Your task to perform on an android device: Go to Reddit.com Image 0: 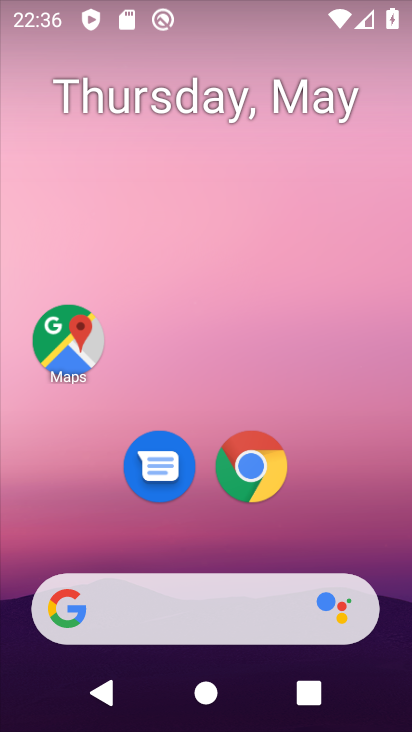
Step 0: click (254, 478)
Your task to perform on an android device: Go to Reddit.com Image 1: 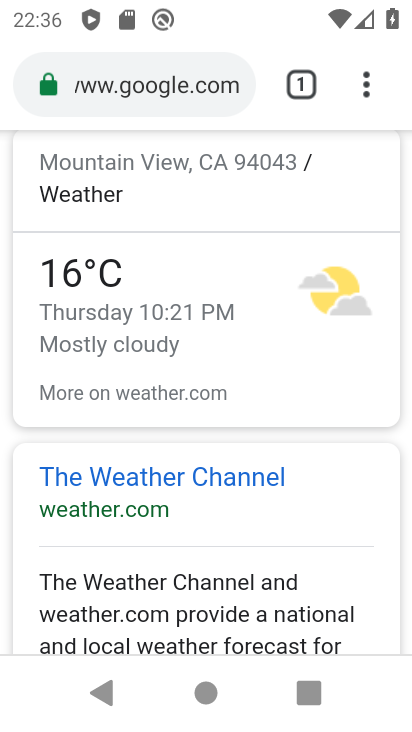
Step 1: click (186, 67)
Your task to perform on an android device: Go to Reddit.com Image 2: 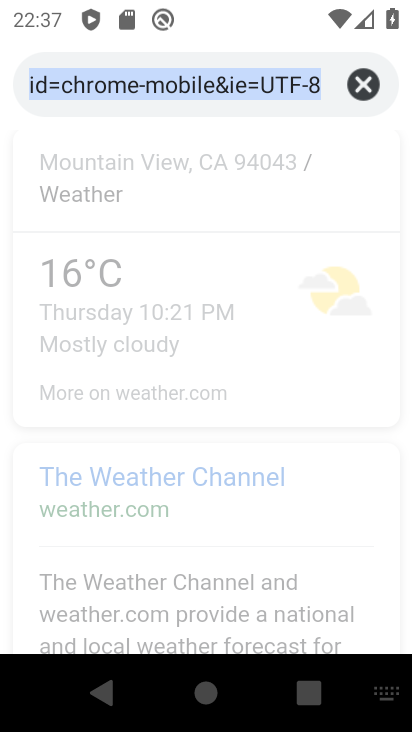
Step 2: type "reddit.com"
Your task to perform on an android device: Go to Reddit.com Image 3: 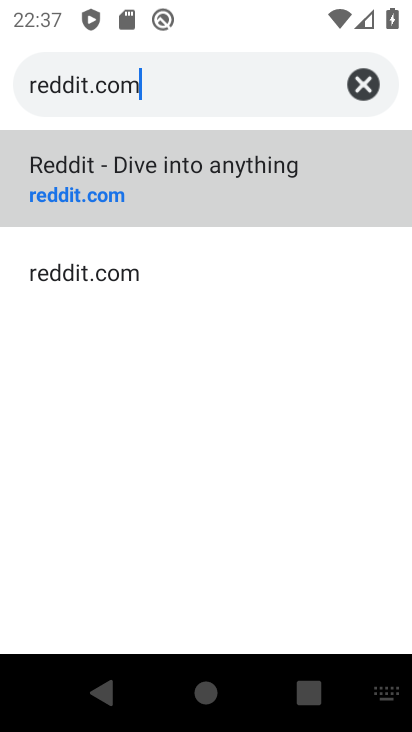
Step 3: click (116, 198)
Your task to perform on an android device: Go to Reddit.com Image 4: 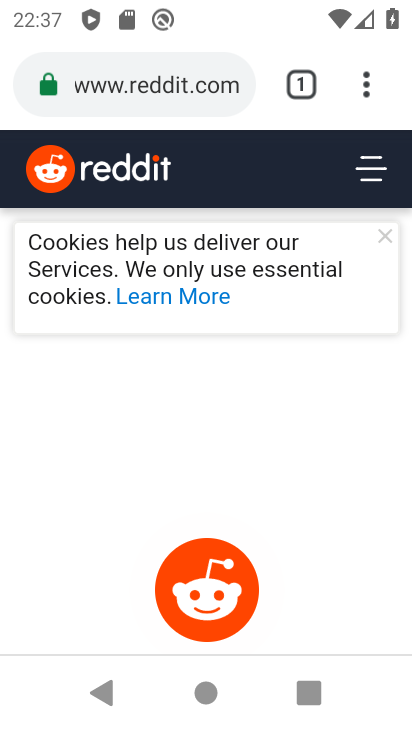
Step 4: task complete